Your task to perform on an android device: Toggle the flashlight Image 0: 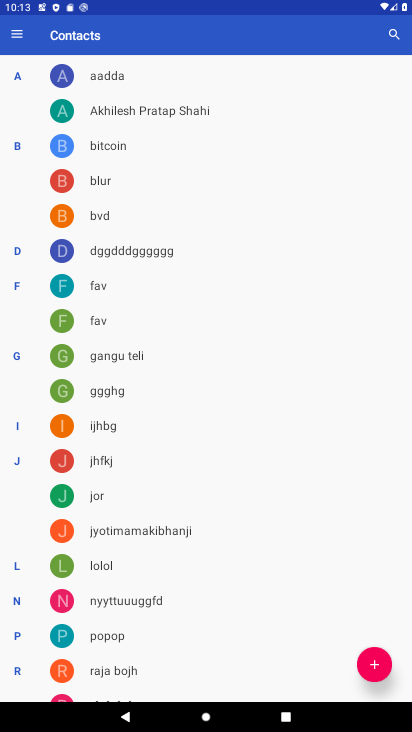
Step 0: press home button
Your task to perform on an android device: Toggle the flashlight Image 1: 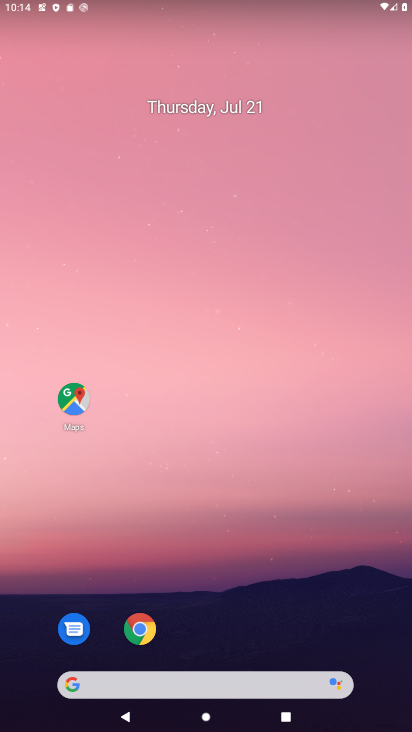
Step 1: task complete